Your task to perform on an android device: Open battery settings Image 0: 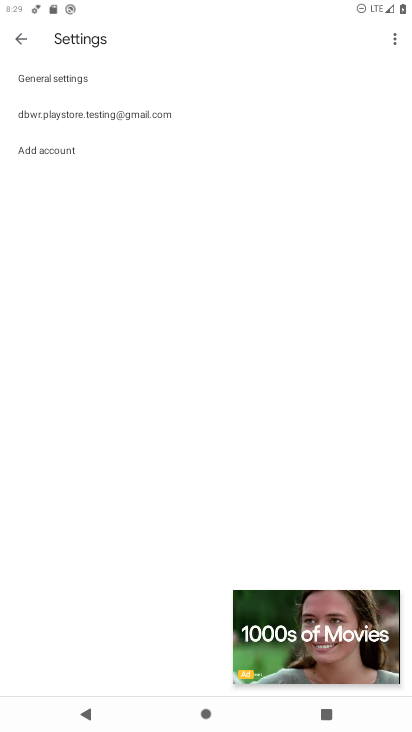
Step 0: click (331, 617)
Your task to perform on an android device: Open battery settings Image 1: 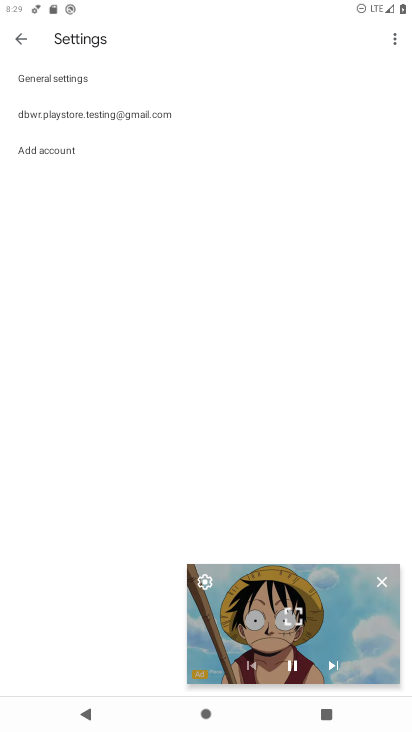
Step 1: click (387, 582)
Your task to perform on an android device: Open battery settings Image 2: 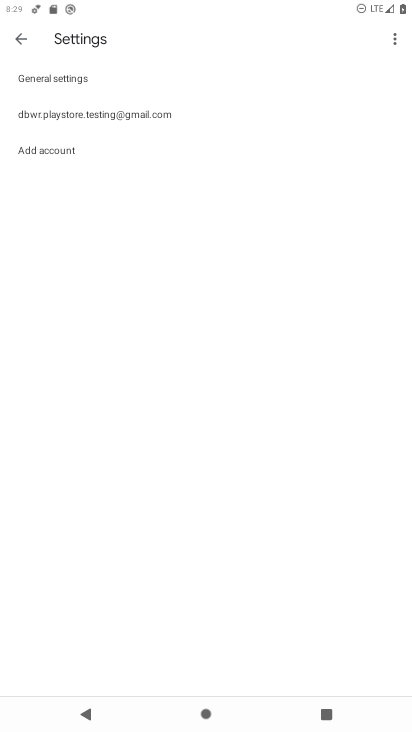
Step 2: press home button
Your task to perform on an android device: Open battery settings Image 3: 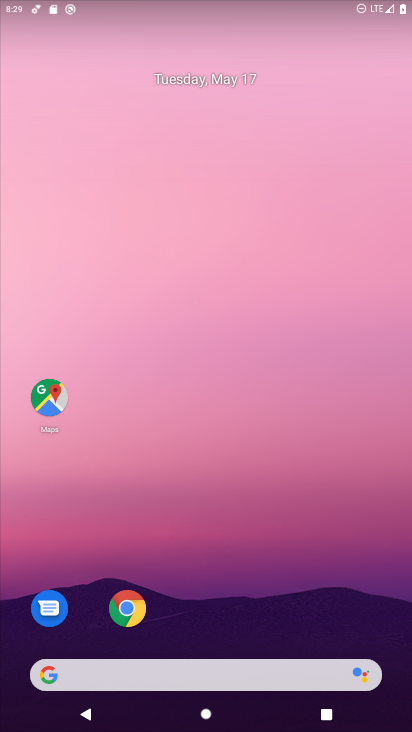
Step 3: drag from (221, 611) to (295, 3)
Your task to perform on an android device: Open battery settings Image 4: 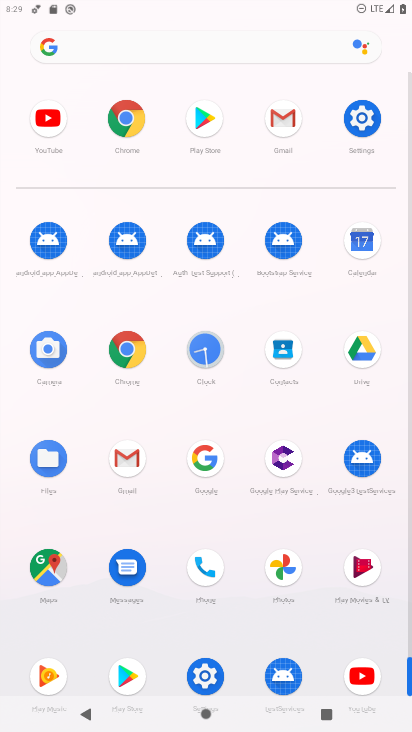
Step 4: click (371, 119)
Your task to perform on an android device: Open battery settings Image 5: 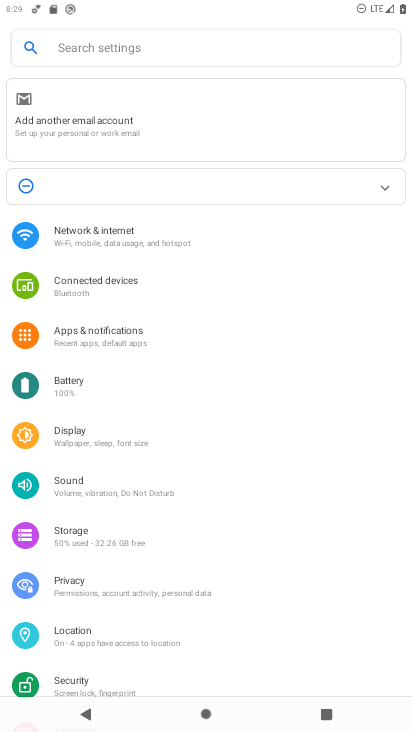
Step 5: click (95, 387)
Your task to perform on an android device: Open battery settings Image 6: 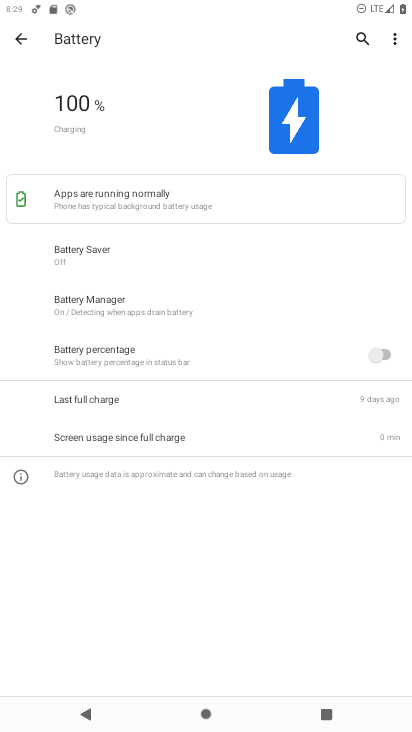
Step 6: task complete